Your task to perform on an android device: turn off notifications settings in the gmail app Image 0: 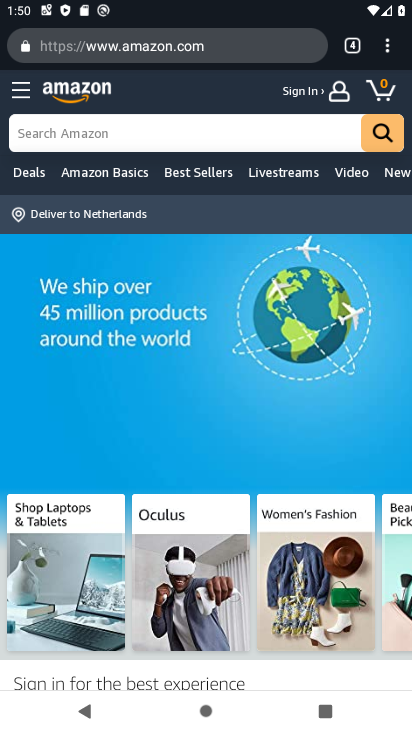
Step 0: press home button
Your task to perform on an android device: turn off notifications settings in the gmail app Image 1: 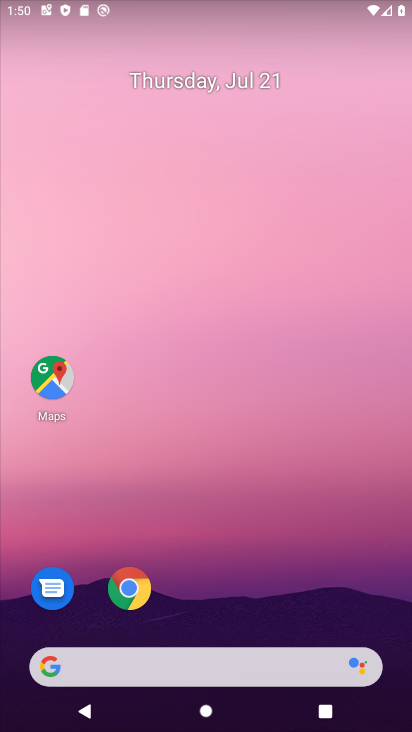
Step 1: drag from (212, 631) to (123, 60)
Your task to perform on an android device: turn off notifications settings in the gmail app Image 2: 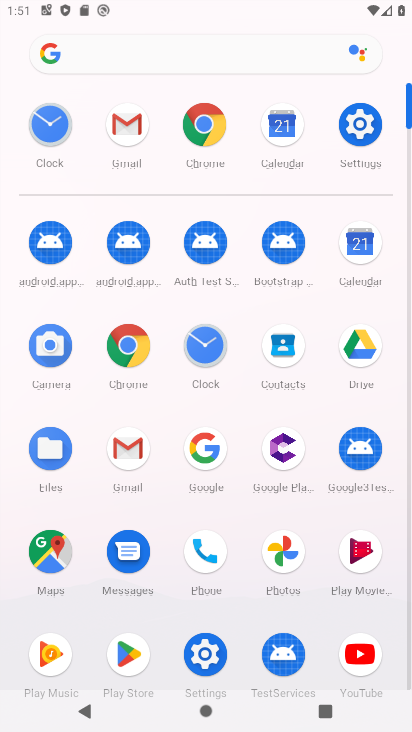
Step 2: click (140, 455)
Your task to perform on an android device: turn off notifications settings in the gmail app Image 3: 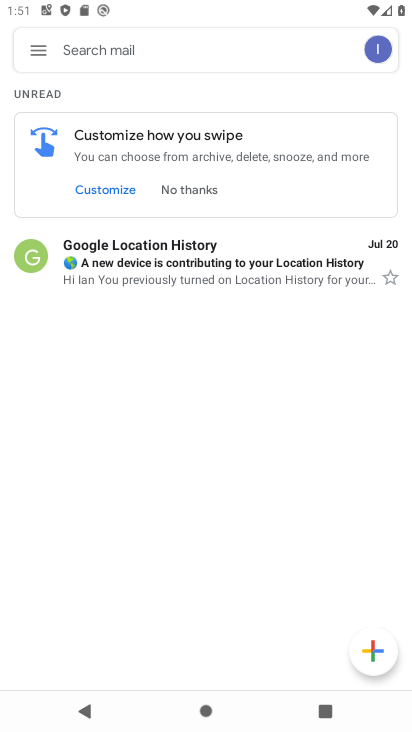
Step 3: click (31, 48)
Your task to perform on an android device: turn off notifications settings in the gmail app Image 4: 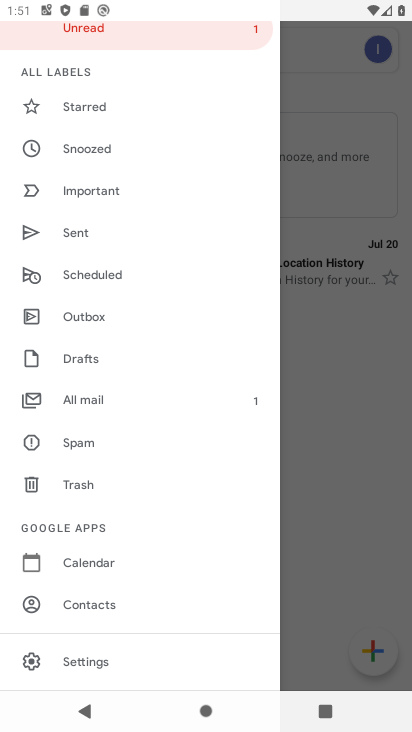
Step 4: click (119, 657)
Your task to perform on an android device: turn off notifications settings in the gmail app Image 5: 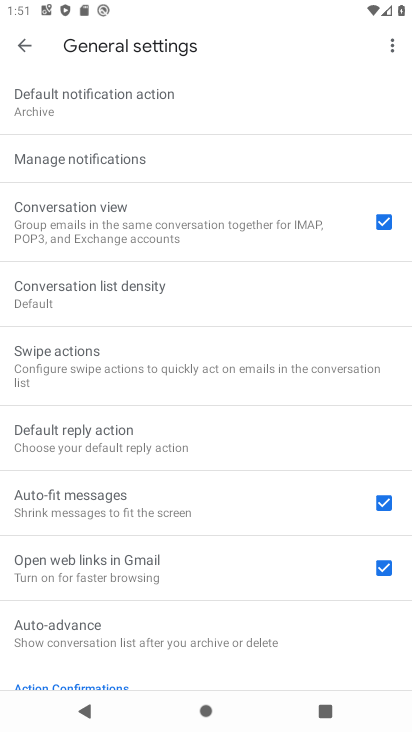
Step 5: click (70, 160)
Your task to perform on an android device: turn off notifications settings in the gmail app Image 6: 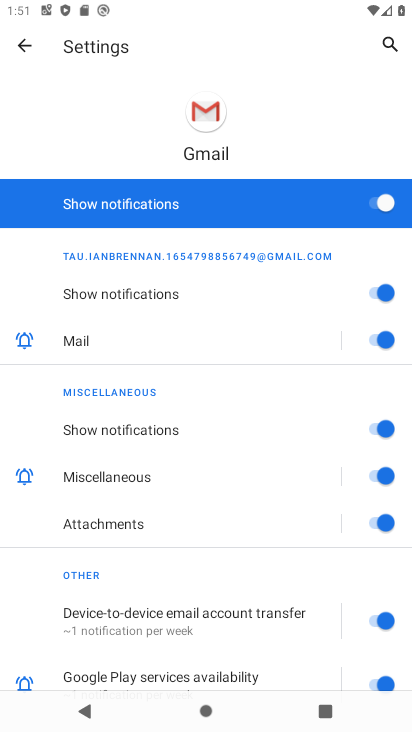
Step 6: click (393, 205)
Your task to perform on an android device: turn off notifications settings in the gmail app Image 7: 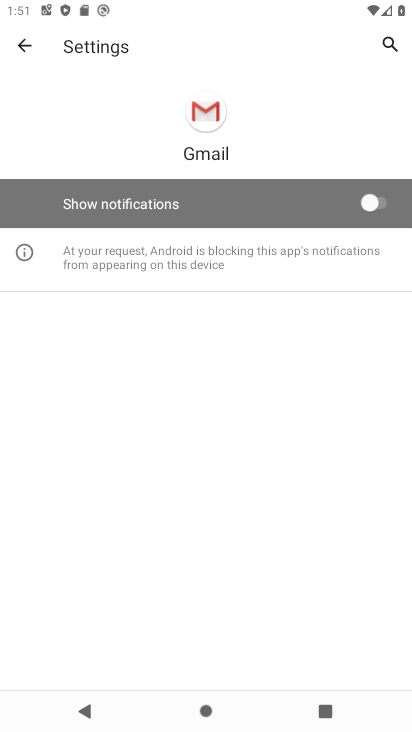
Step 7: task complete